Your task to perform on an android device: Open Youtube and go to the subscriptions tab Image 0: 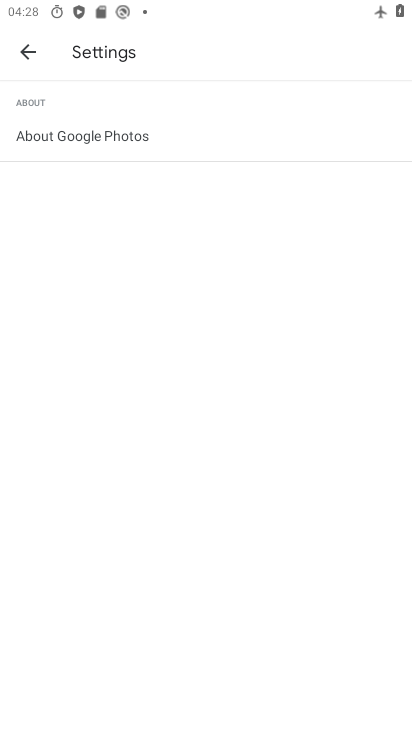
Step 0: press home button
Your task to perform on an android device: Open Youtube and go to the subscriptions tab Image 1: 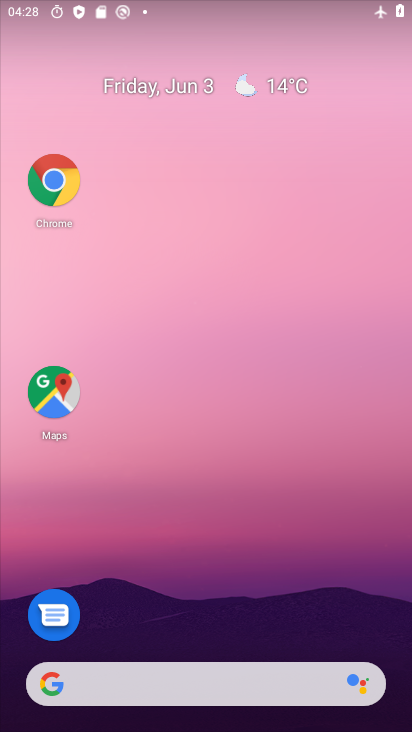
Step 1: drag from (128, 729) to (126, 47)
Your task to perform on an android device: Open Youtube and go to the subscriptions tab Image 2: 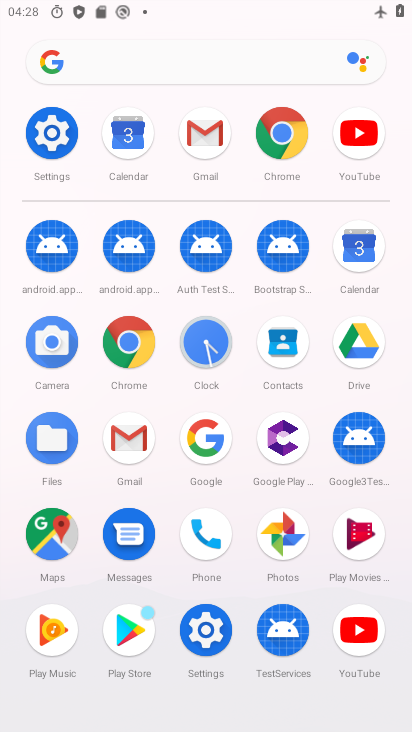
Step 2: click (356, 650)
Your task to perform on an android device: Open Youtube and go to the subscriptions tab Image 3: 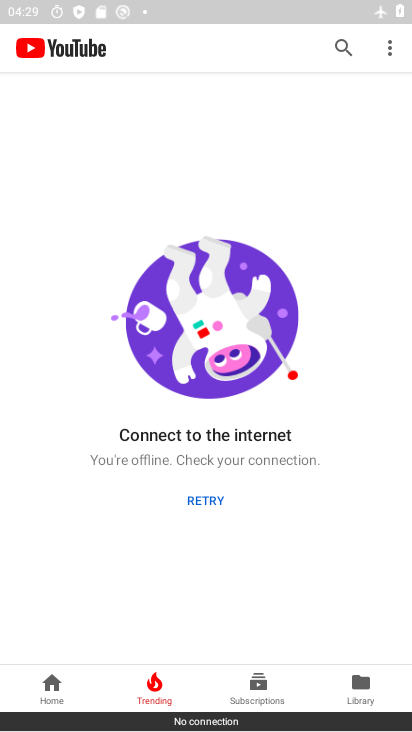
Step 3: click (256, 699)
Your task to perform on an android device: Open Youtube and go to the subscriptions tab Image 4: 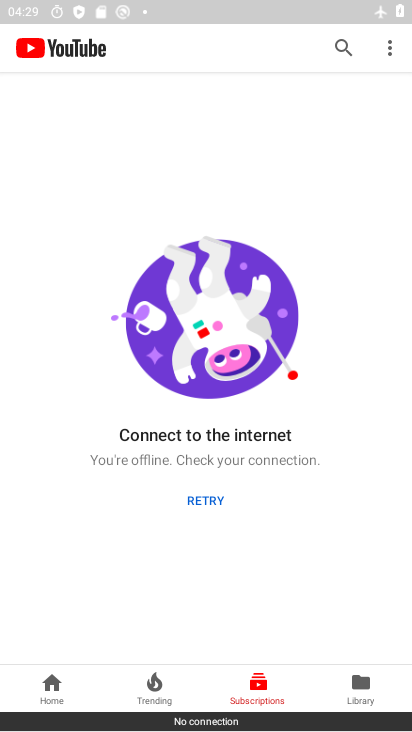
Step 4: task complete